Your task to perform on an android device: Go to Wikipedia Image 0: 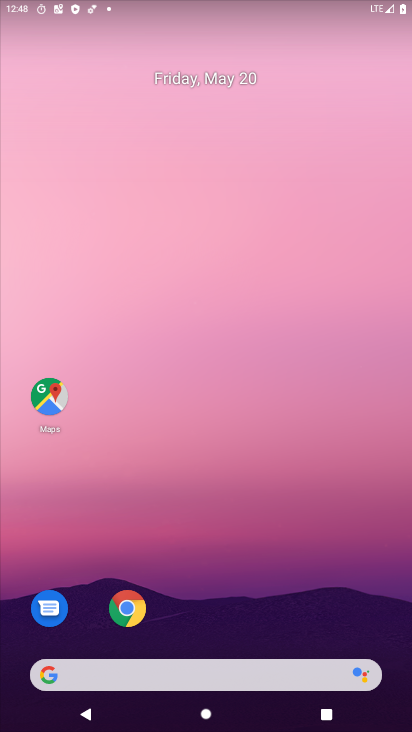
Step 0: drag from (283, 636) to (261, 52)
Your task to perform on an android device: Go to Wikipedia Image 1: 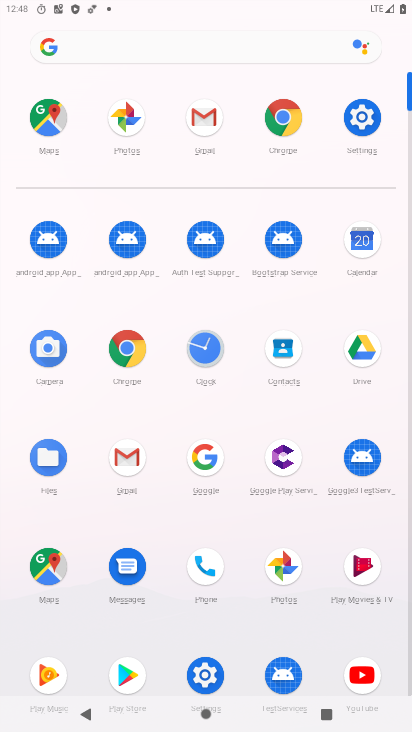
Step 1: click (286, 122)
Your task to perform on an android device: Go to Wikipedia Image 2: 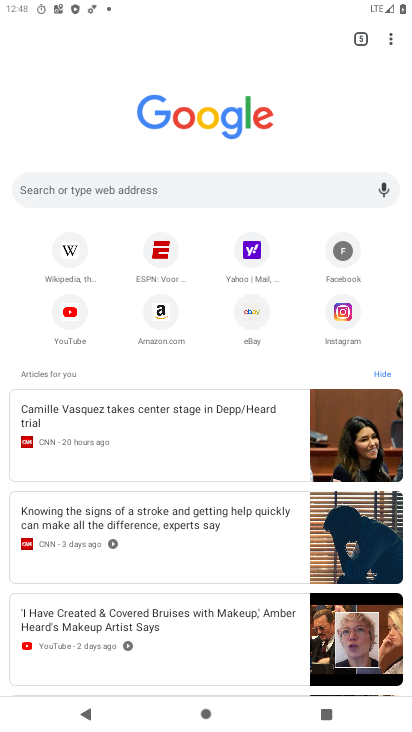
Step 2: click (185, 187)
Your task to perform on an android device: Go to Wikipedia Image 3: 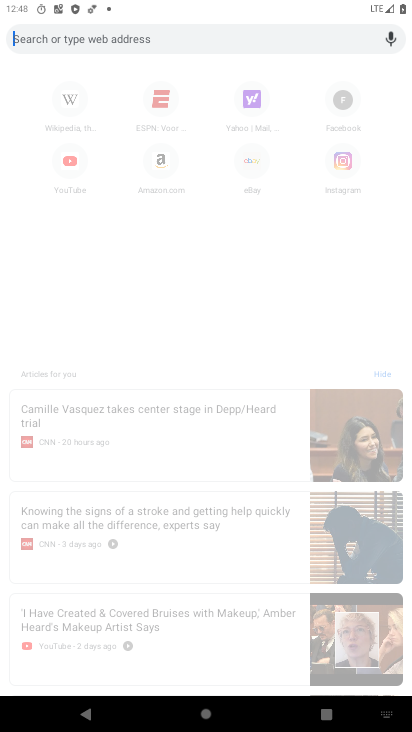
Step 3: click (64, 104)
Your task to perform on an android device: Go to Wikipedia Image 4: 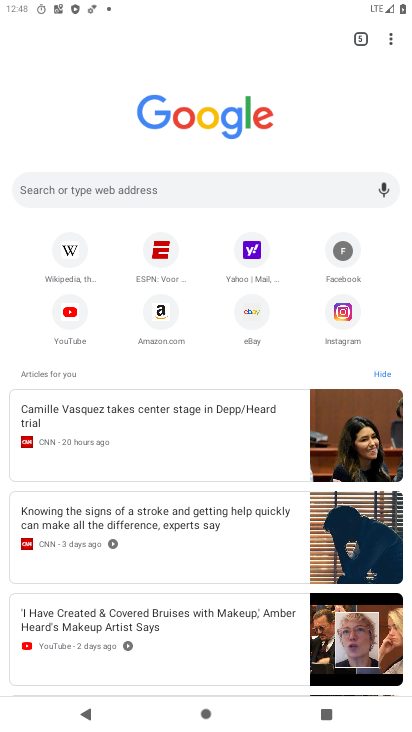
Step 4: click (82, 259)
Your task to perform on an android device: Go to Wikipedia Image 5: 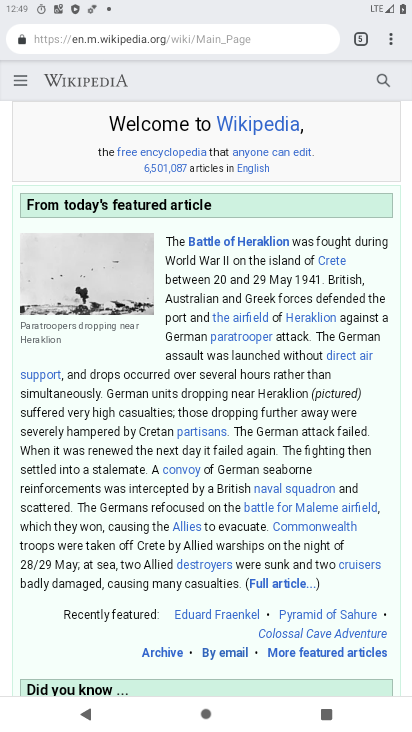
Step 5: task complete